Your task to perform on an android device: Search for seafood restaurants on Google Maps Image 0: 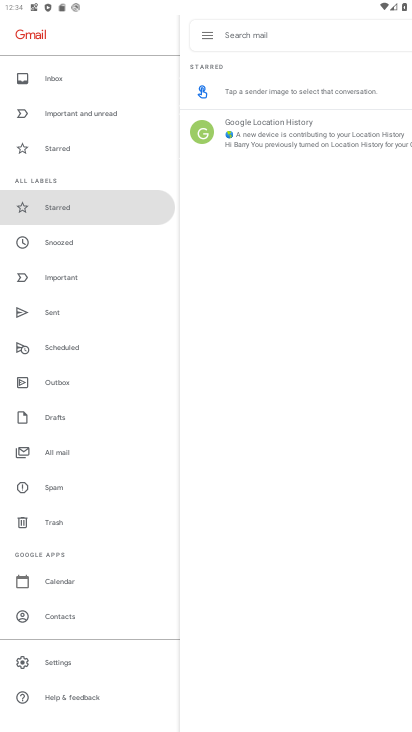
Step 0: press home button
Your task to perform on an android device: Search for seafood restaurants on Google Maps Image 1: 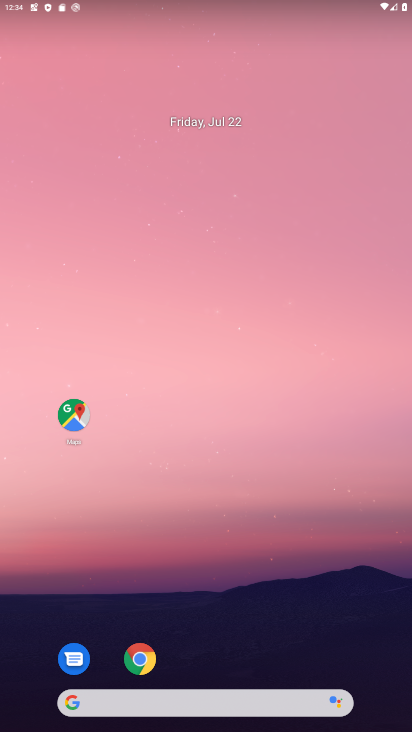
Step 1: drag from (182, 599) to (197, 59)
Your task to perform on an android device: Search for seafood restaurants on Google Maps Image 2: 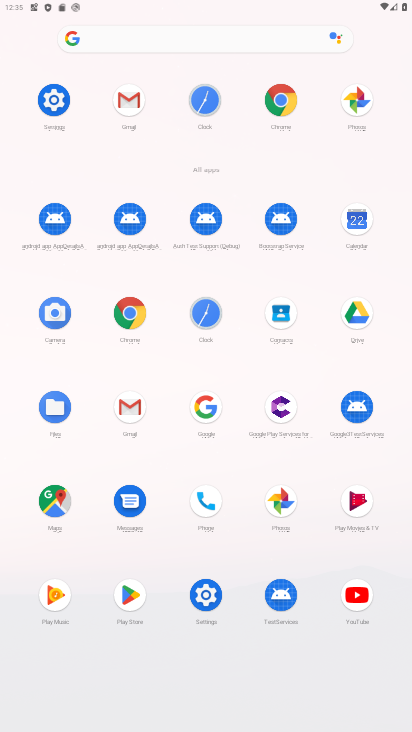
Step 2: click (57, 499)
Your task to perform on an android device: Search for seafood restaurants on Google Maps Image 3: 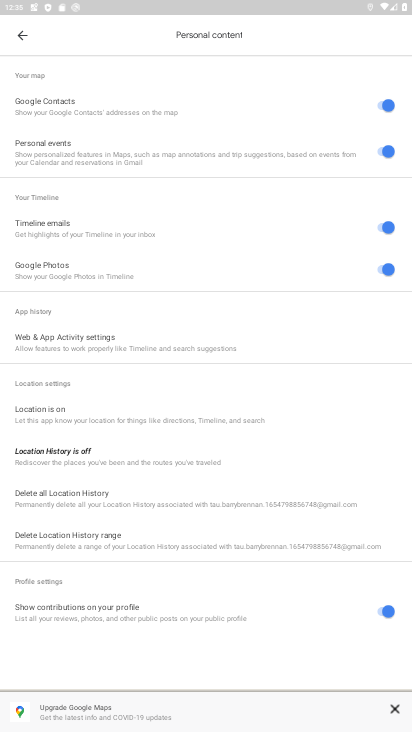
Step 3: task complete